Your task to perform on an android device: toggle data saver in the chrome app Image 0: 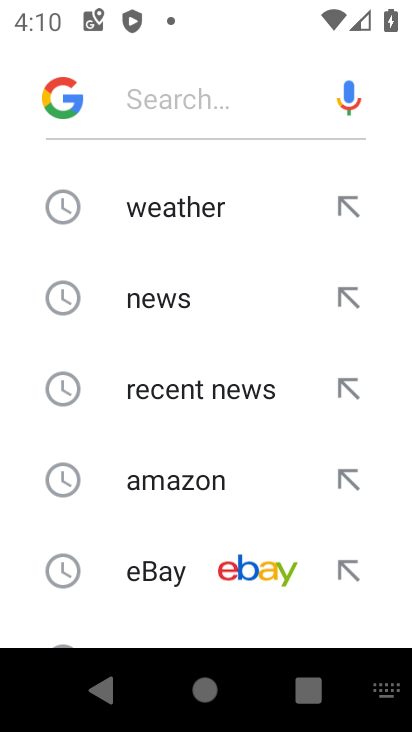
Step 0: press home button
Your task to perform on an android device: toggle data saver in the chrome app Image 1: 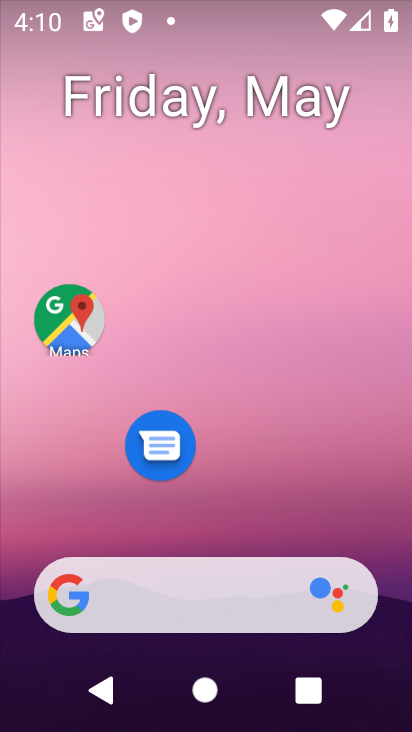
Step 1: drag from (209, 440) to (351, 0)
Your task to perform on an android device: toggle data saver in the chrome app Image 2: 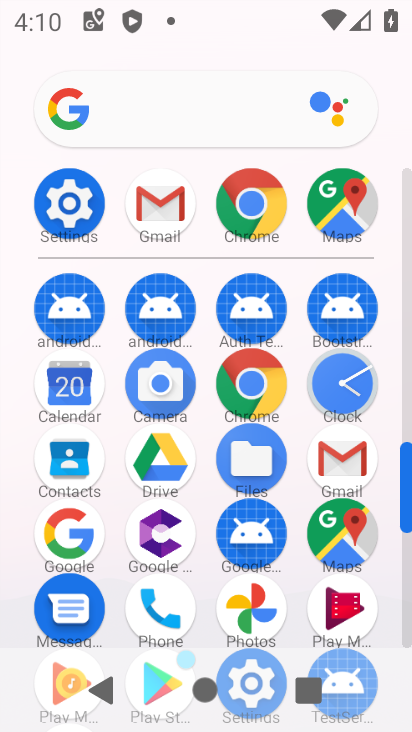
Step 2: click (259, 380)
Your task to perform on an android device: toggle data saver in the chrome app Image 3: 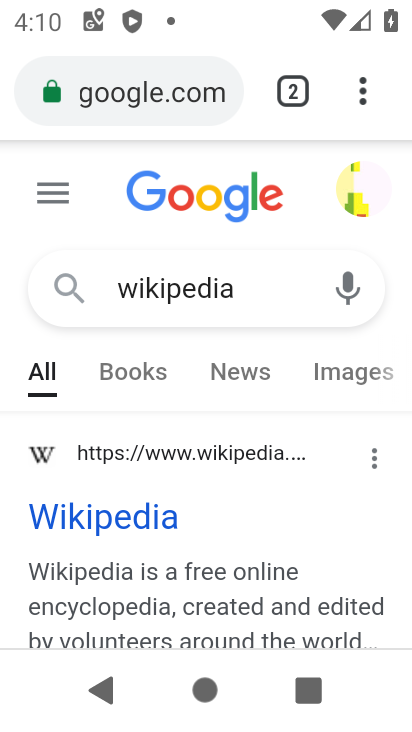
Step 3: click (358, 84)
Your task to perform on an android device: toggle data saver in the chrome app Image 4: 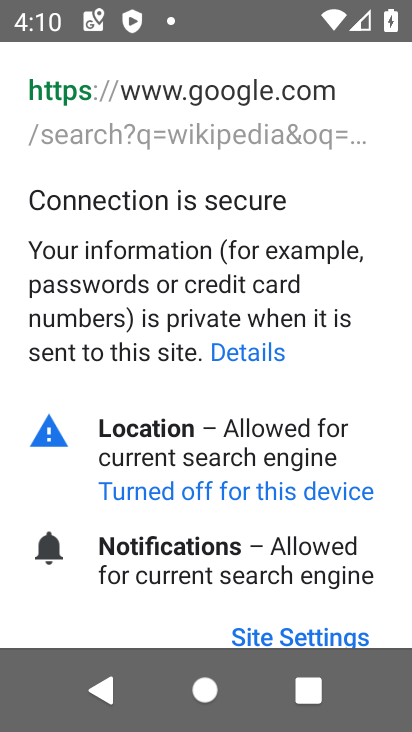
Step 4: press back button
Your task to perform on an android device: toggle data saver in the chrome app Image 5: 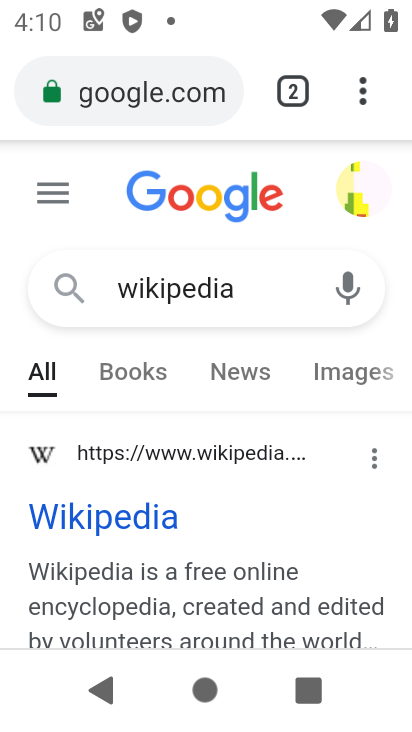
Step 5: click (377, 105)
Your task to perform on an android device: toggle data saver in the chrome app Image 6: 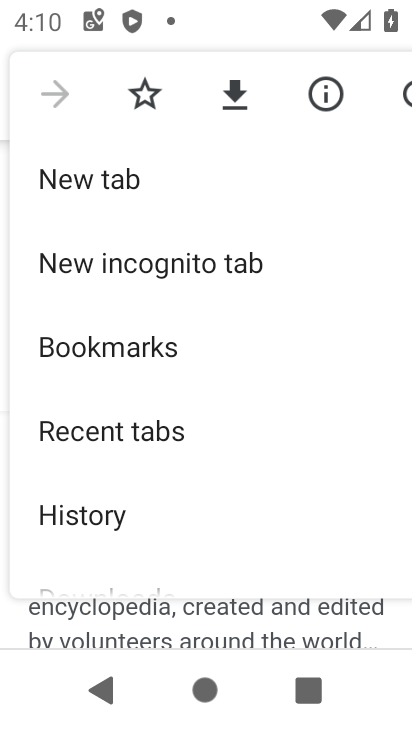
Step 6: drag from (117, 499) to (203, 109)
Your task to perform on an android device: toggle data saver in the chrome app Image 7: 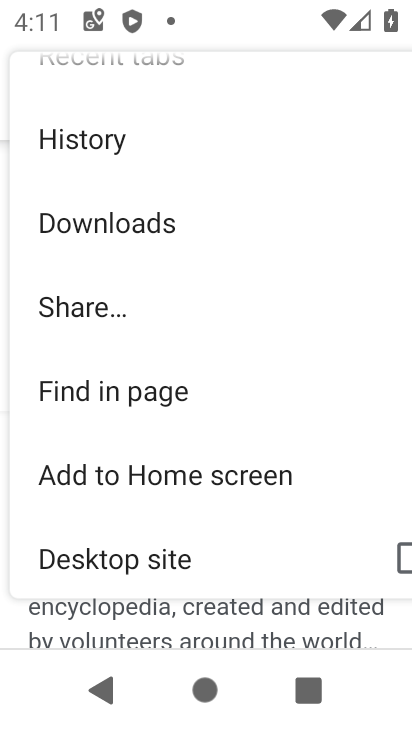
Step 7: drag from (176, 517) to (237, 180)
Your task to perform on an android device: toggle data saver in the chrome app Image 8: 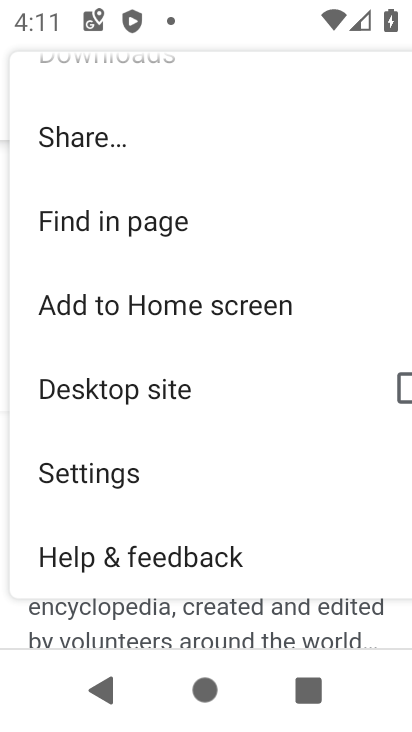
Step 8: click (134, 479)
Your task to perform on an android device: toggle data saver in the chrome app Image 9: 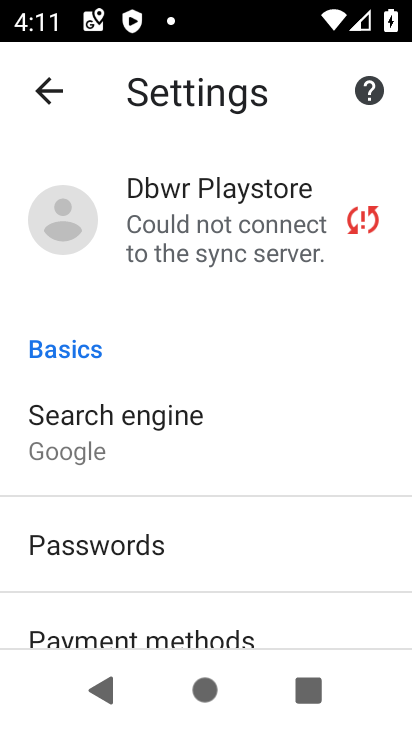
Step 9: drag from (171, 540) to (237, 162)
Your task to perform on an android device: toggle data saver in the chrome app Image 10: 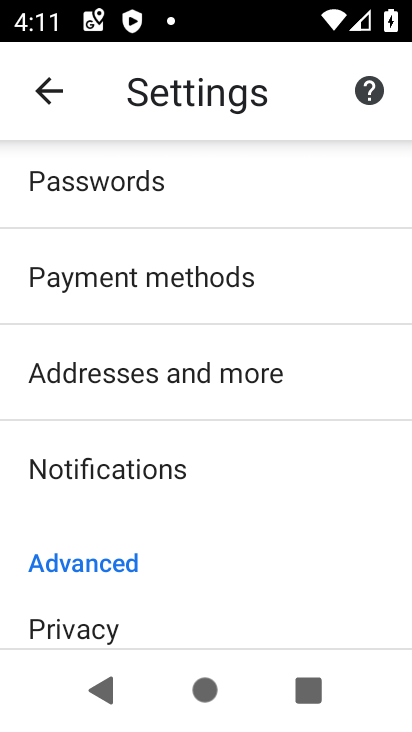
Step 10: drag from (203, 487) to (262, 141)
Your task to perform on an android device: toggle data saver in the chrome app Image 11: 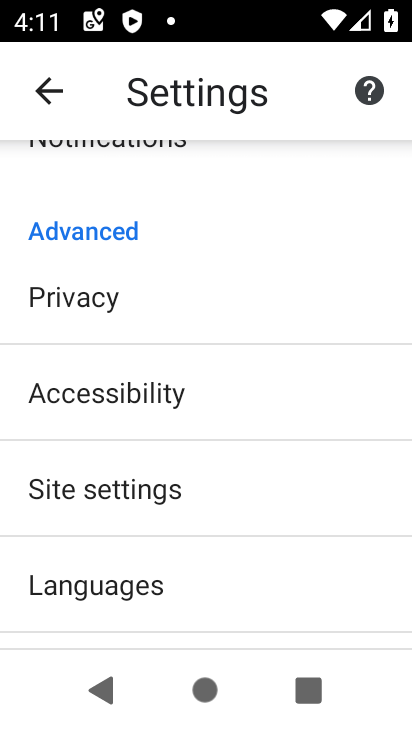
Step 11: drag from (179, 525) to (239, 231)
Your task to perform on an android device: toggle data saver in the chrome app Image 12: 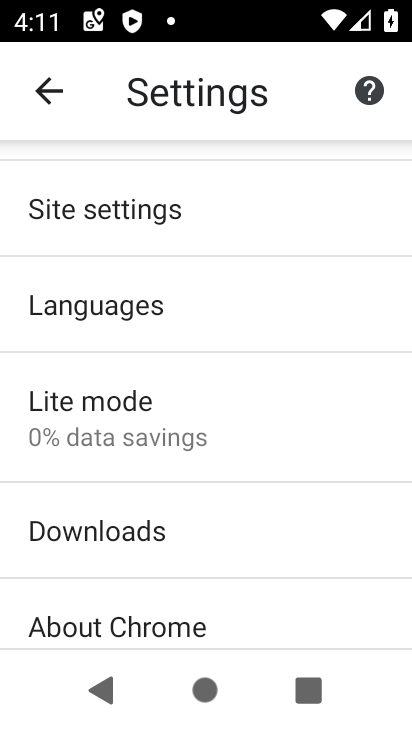
Step 12: click (163, 439)
Your task to perform on an android device: toggle data saver in the chrome app Image 13: 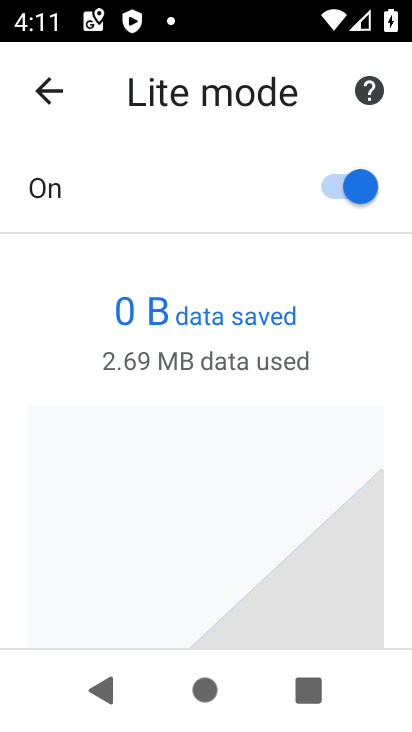
Step 13: click (315, 168)
Your task to perform on an android device: toggle data saver in the chrome app Image 14: 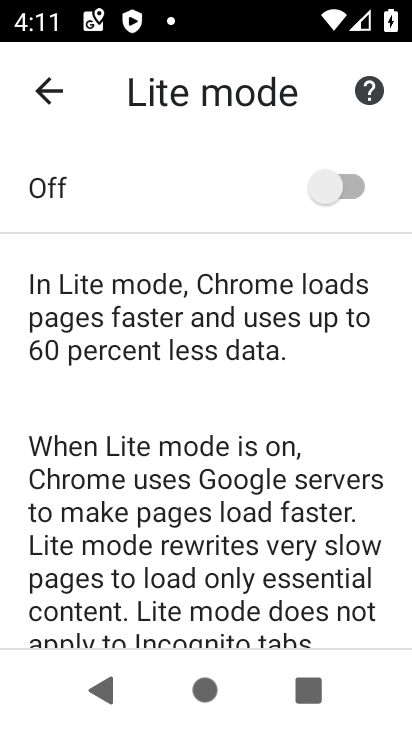
Step 14: task complete